Your task to perform on an android device: open sync settings in chrome Image 0: 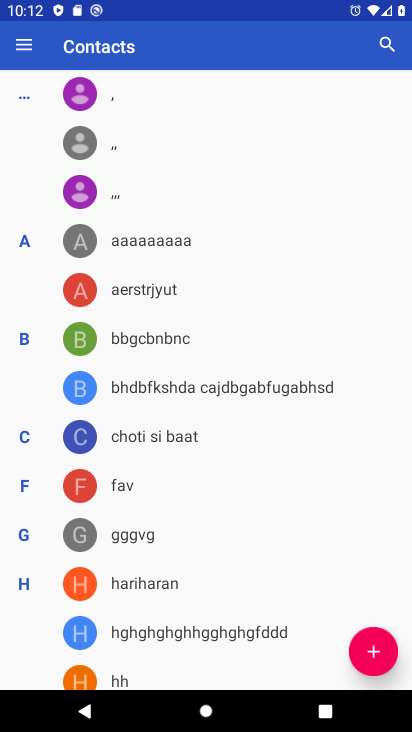
Step 0: press back button
Your task to perform on an android device: open sync settings in chrome Image 1: 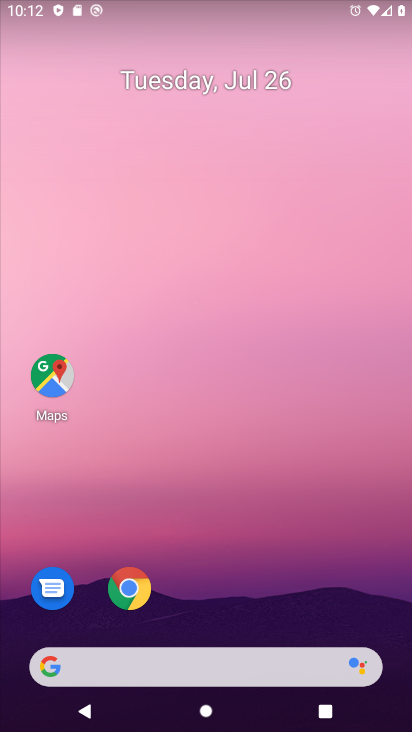
Step 1: click (124, 588)
Your task to perform on an android device: open sync settings in chrome Image 2: 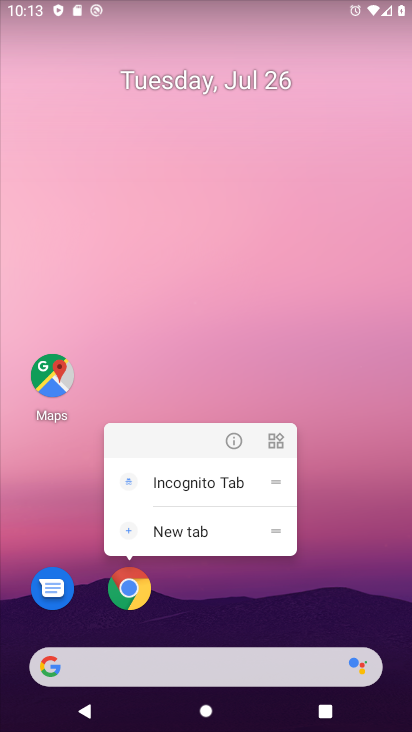
Step 2: click (136, 583)
Your task to perform on an android device: open sync settings in chrome Image 3: 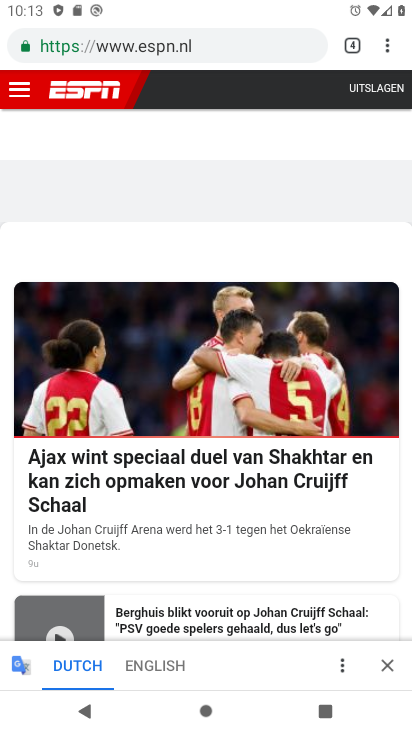
Step 3: drag from (386, 41) to (227, 550)
Your task to perform on an android device: open sync settings in chrome Image 4: 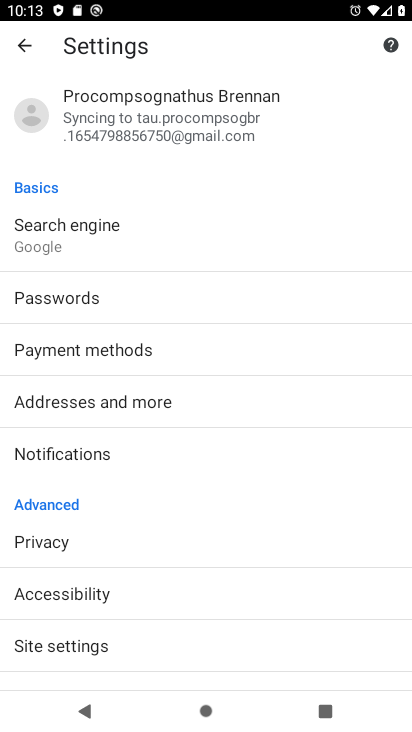
Step 4: click (151, 113)
Your task to perform on an android device: open sync settings in chrome Image 5: 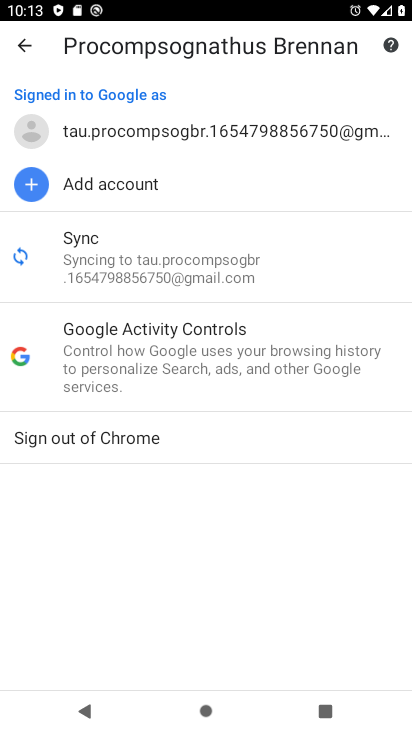
Step 5: task complete